Your task to perform on an android device: toggle priority inbox in the gmail app Image 0: 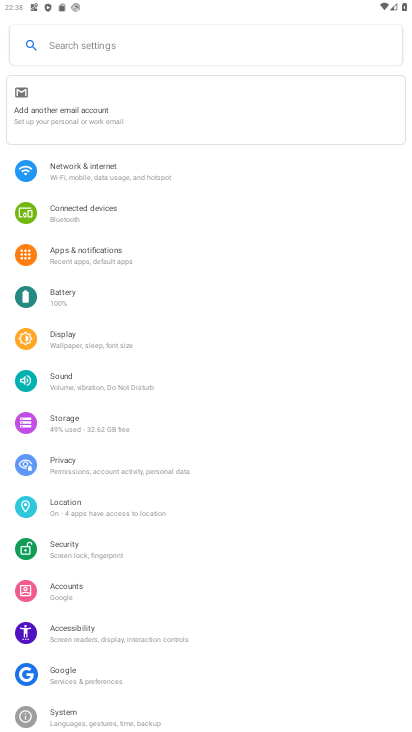
Step 0: press home button
Your task to perform on an android device: toggle priority inbox in the gmail app Image 1: 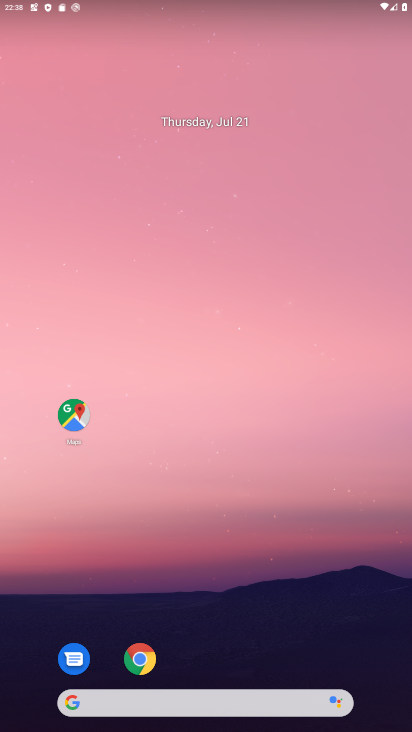
Step 1: drag from (282, 614) to (279, 55)
Your task to perform on an android device: toggle priority inbox in the gmail app Image 2: 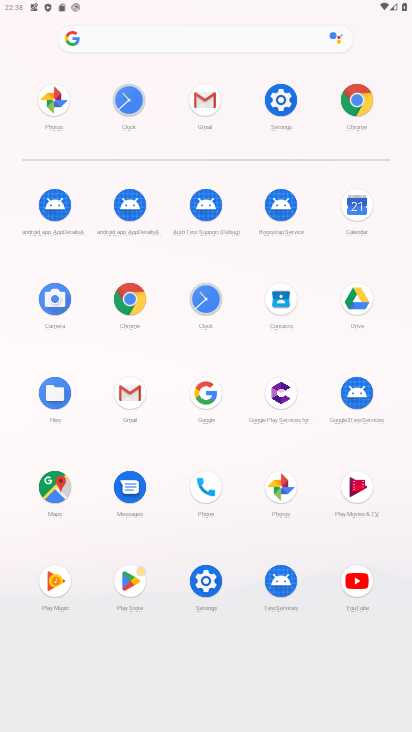
Step 2: click (197, 95)
Your task to perform on an android device: toggle priority inbox in the gmail app Image 3: 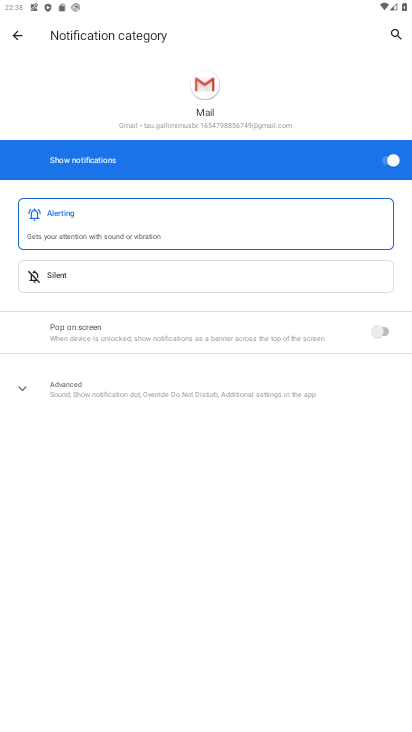
Step 3: click (0, 36)
Your task to perform on an android device: toggle priority inbox in the gmail app Image 4: 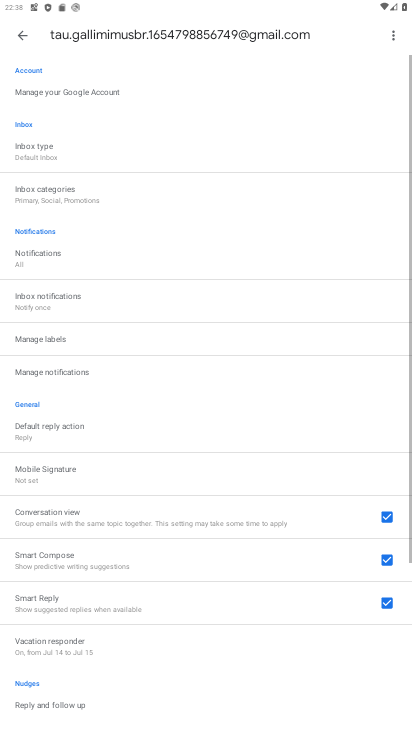
Step 4: click (11, 35)
Your task to perform on an android device: toggle priority inbox in the gmail app Image 5: 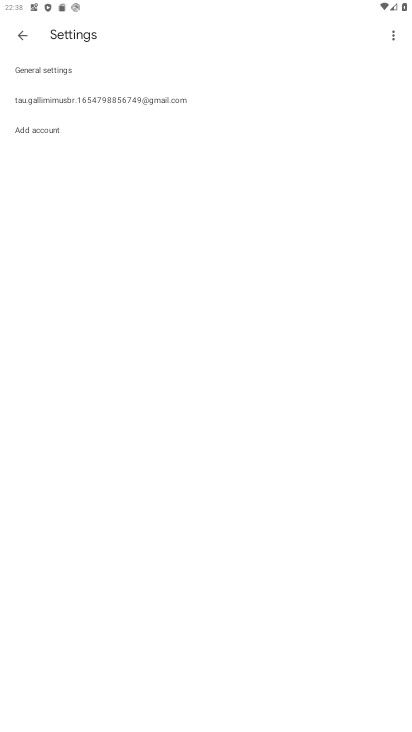
Step 5: click (13, 35)
Your task to perform on an android device: toggle priority inbox in the gmail app Image 6: 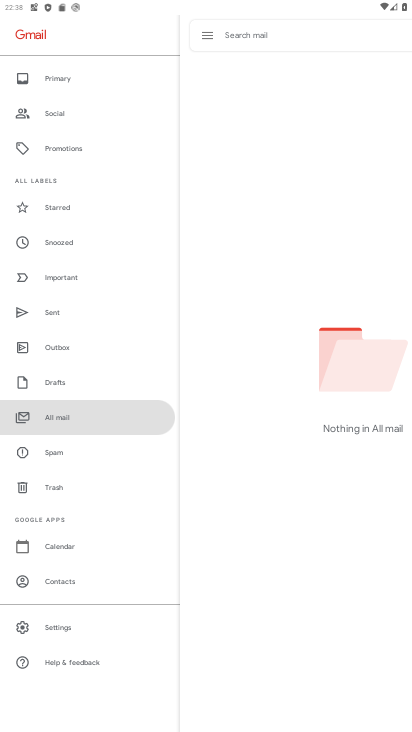
Step 6: click (71, 637)
Your task to perform on an android device: toggle priority inbox in the gmail app Image 7: 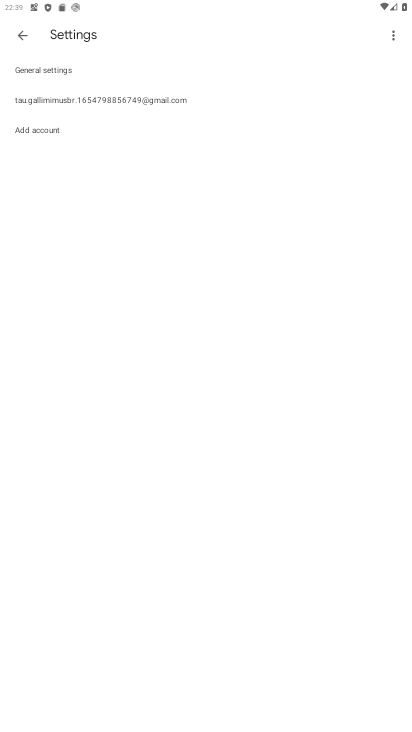
Step 7: click (147, 97)
Your task to perform on an android device: toggle priority inbox in the gmail app Image 8: 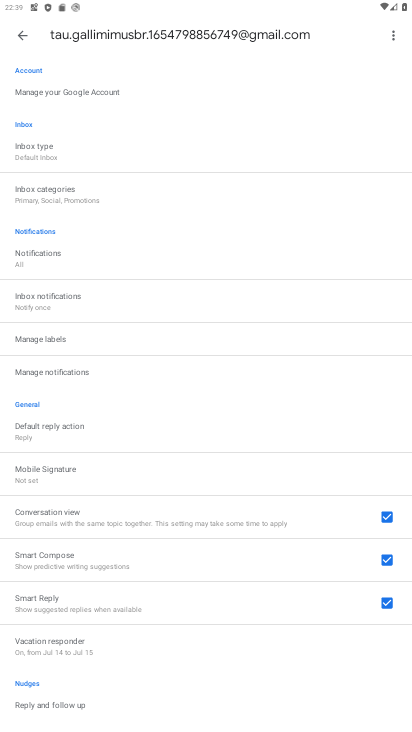
Step 8: click (54, 154)
Your task to perform on an android device: toggle priority inbox in the gmail app Image 9: 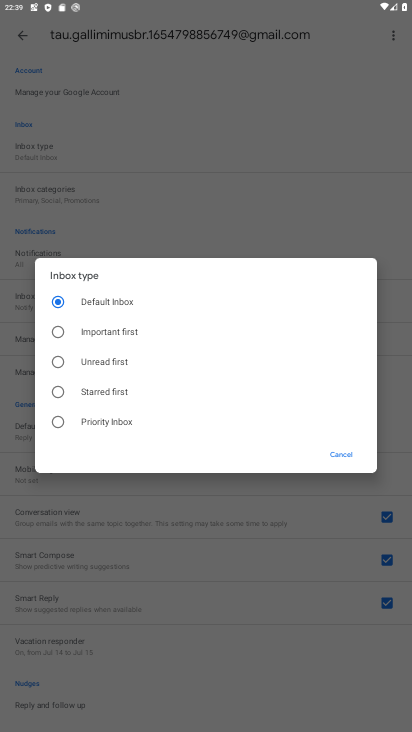
Step 9: click (105, 423)
Your task to perform on an android device: toggle priority inbox in the gmail app Image 10: 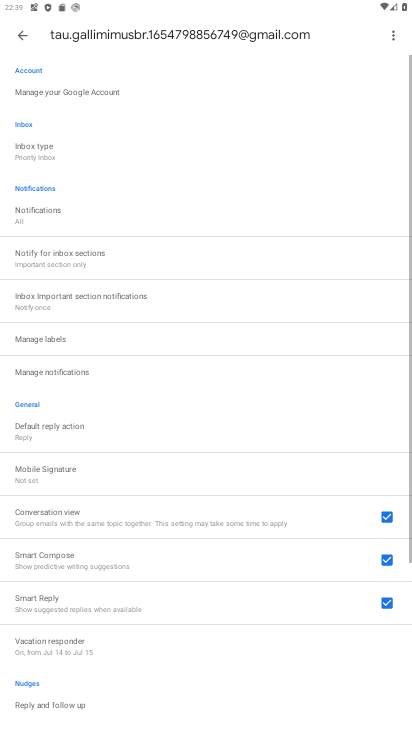
Step 10: task complete